Your task to perform on an android device: delete a single message in the gmail app Image 0: 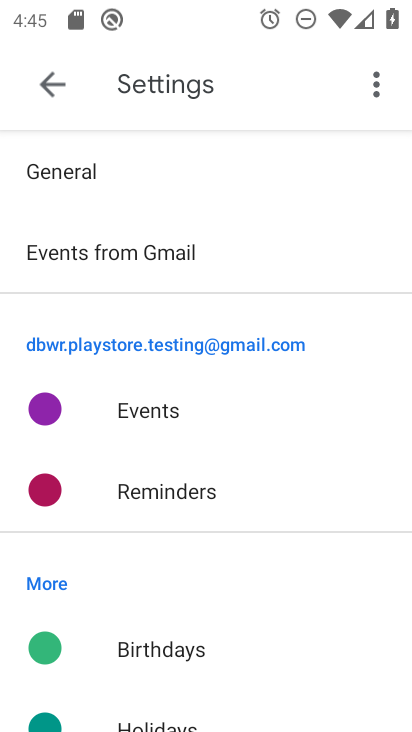
Step 0: press home button
Your task to perform on an android device: delete a single message in the gmail app Image 1: 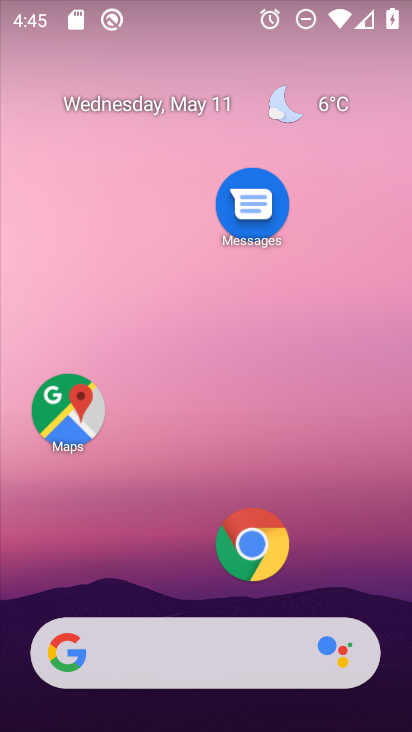
Step 1: drag from (144, 526) to (246, 50)
Your task to perform on an android device: delete a single message in the gmail app Image 2: 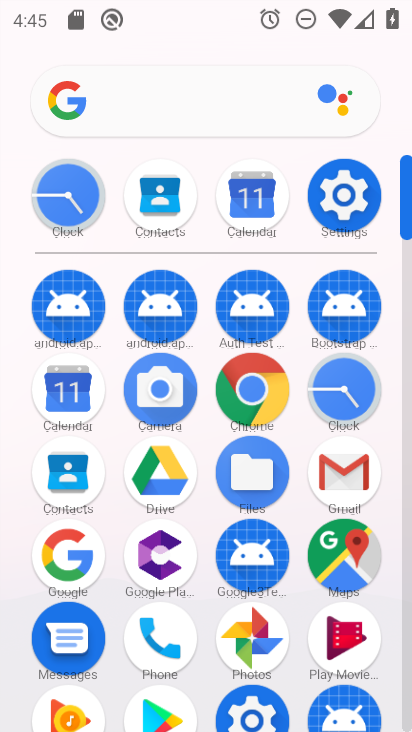
Step 2: click (338, 474)
Your task to perform on an android device: delete a single message in the gmail app Image 3: 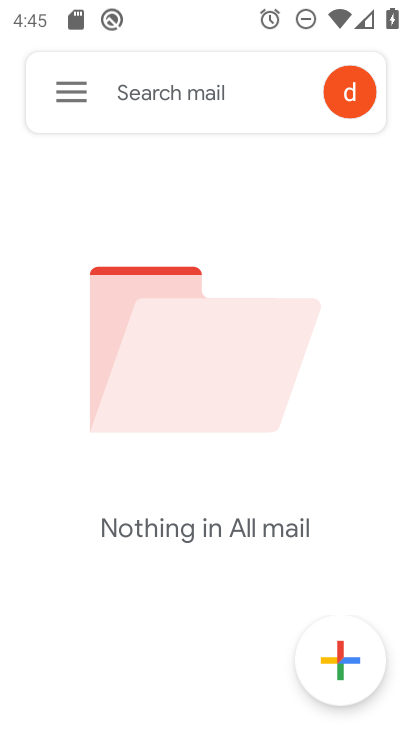
Step 3: task complete